Your task to perform on an android device: toggle priority inbox in the gmail app Image 0: 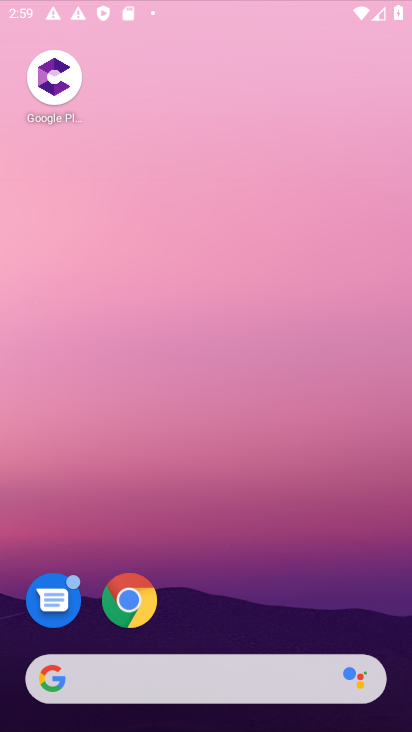
Step 0: press home button
Your task to perform on an android device: toggle priority inbox in the gmail app Image 1: 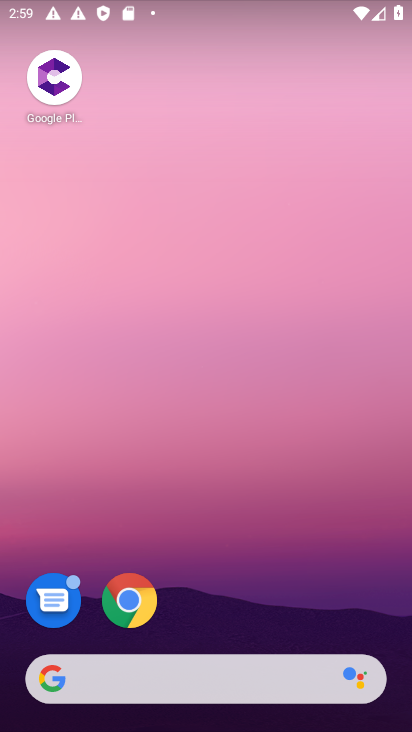
Step 1: drag from (231, 607) to (314, 11)
Your task to perform on an android device: toggle priority inbox in the gmail app Image 2: 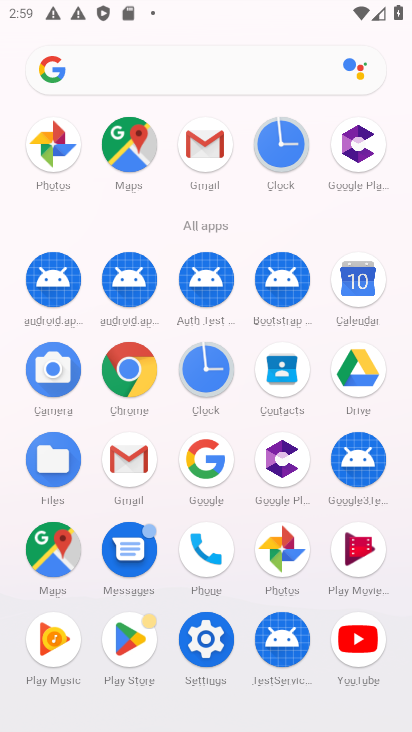
Step 2: click (199, 160)
Your task to perform on an android device: toggle priority inbox in the gmail app Image 3: 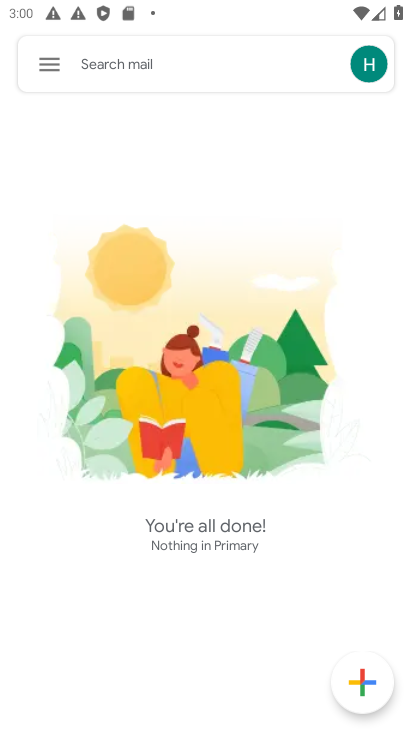
Step 3: click (50, 67)
Your task to perform on an android device: toggle priority inbox in the gmail app Image 4: 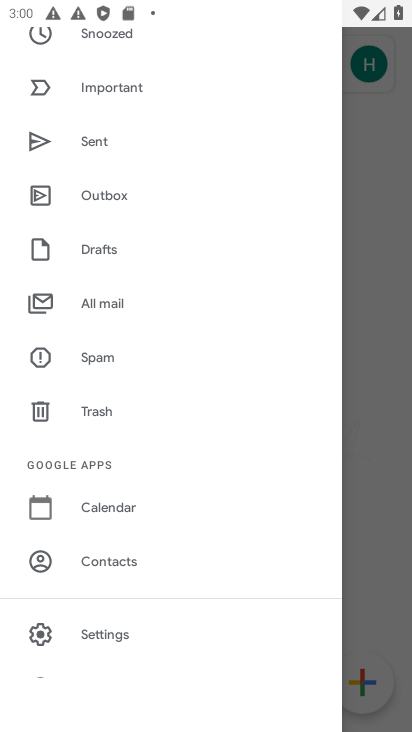
Step 4: click (84, 637)
Your task to perform on an android device: toggle priority inbox in the gmail app Image 5: 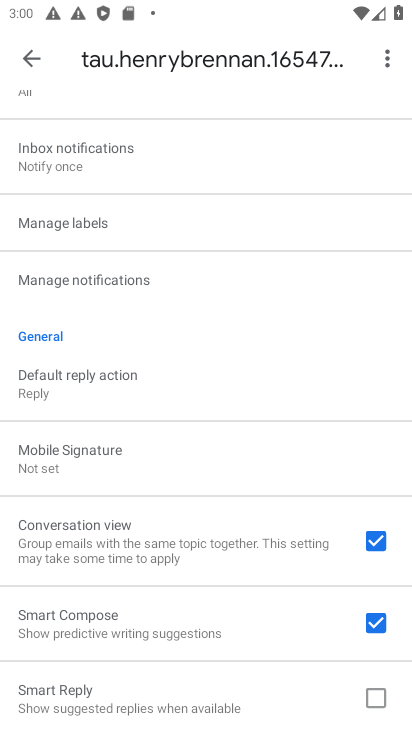
Step 5: drag from (165, 311) to (162, 568)
Your task to perform on an android device: toggle priority inbox in the gmail app Image 6: 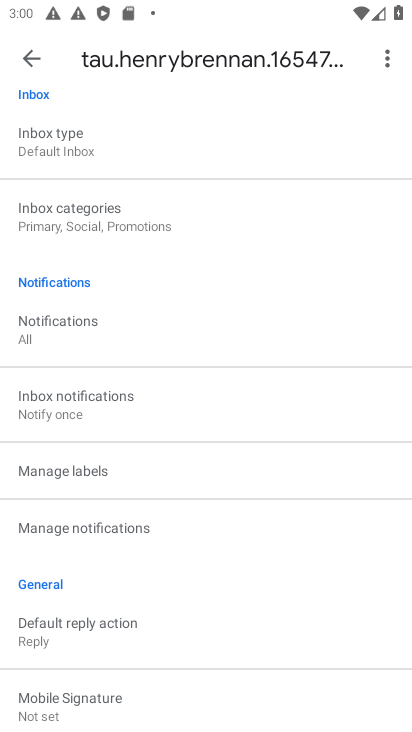
Step 6: click (56, 138)
Your task to perform on an android device: toggle priority inbox in the gmail app Image 7: 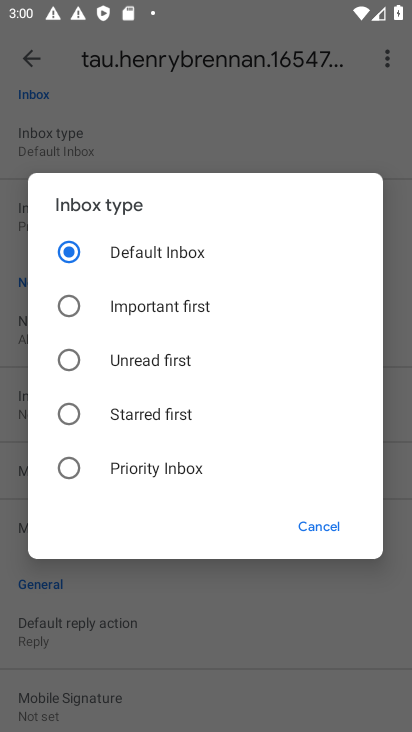
Step 7: click (78, 471)
Your task to perform on an android device: toggle priority inbox in the gmail app Image 8: 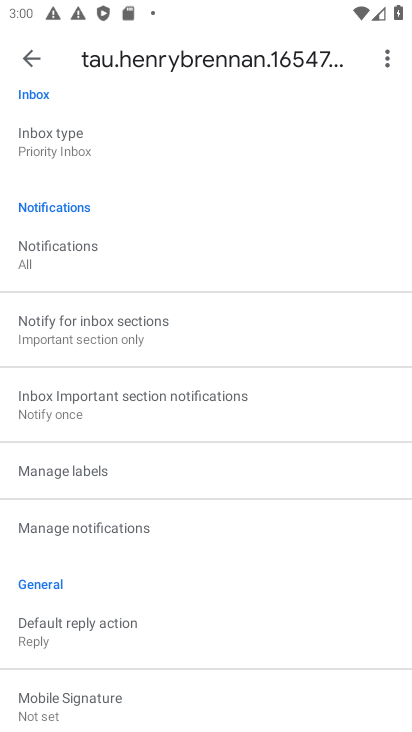
Step 8: task complete